Your task to perform on an android device: empty trash in the gmail app Image 0: 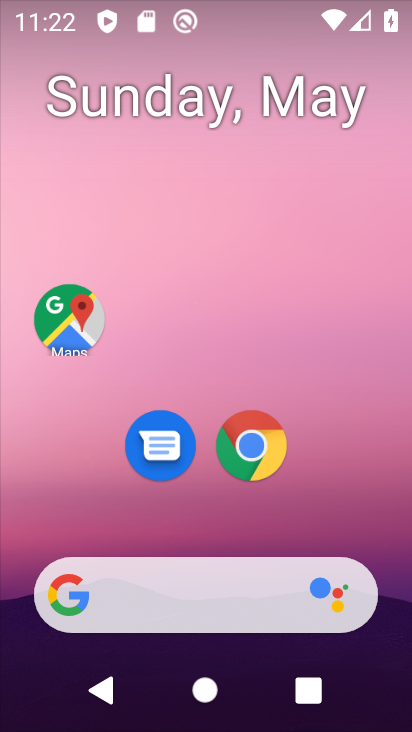
Step 0: press home button
Your task to perform on an android device: empty trash in the gmail app Image 1: 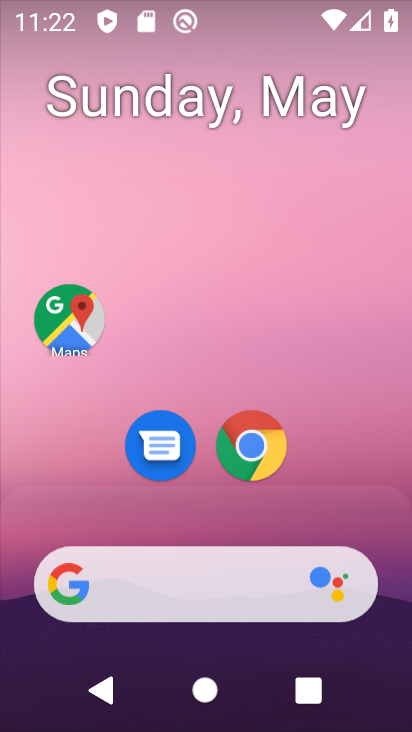
Step 1: drag from (204, 523) to (227, 9)
Your task to perform on an android device: empty trash in the gmail app Image 2: 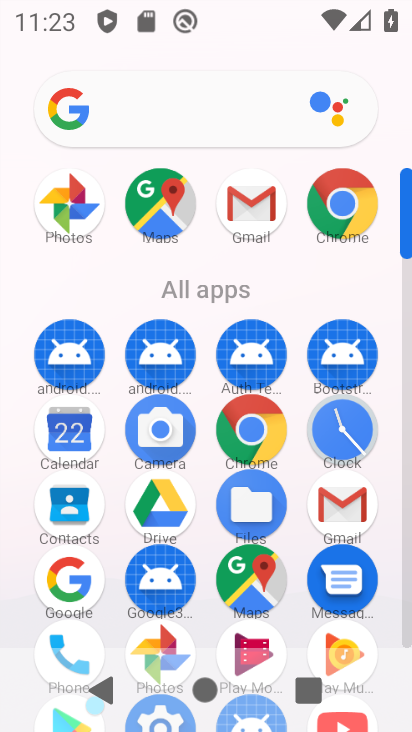
Step 2: click (348, 494)
Your task to perform on an android device: empty trash in the gmail app Image 3: 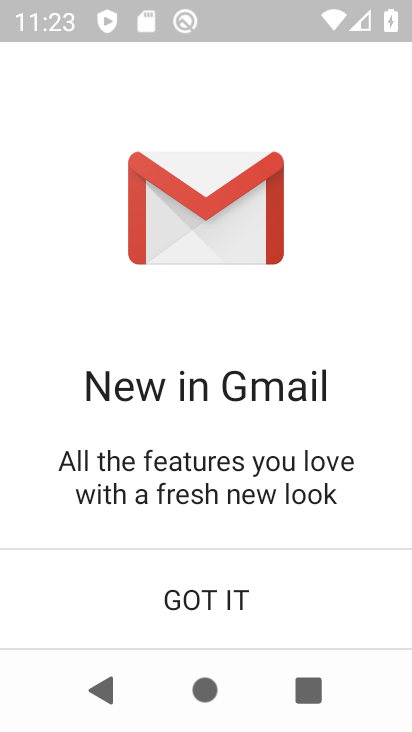
Step 3: click (212, 614)
Your task to perform on an android device: empty trash in the gmail app Image 4: 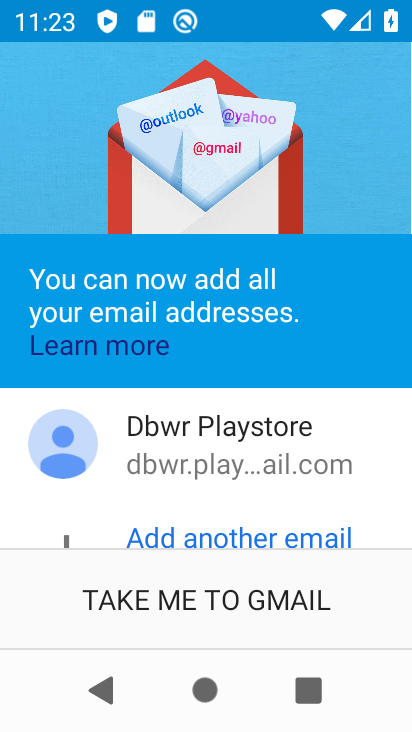
Step 4: click (200, 616)
Your task to perform on an android device: empty trash in the gmail app Image 5: 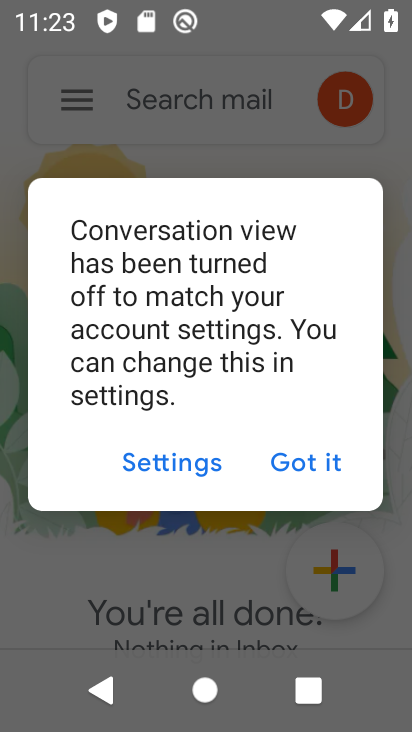
Step 5: click (309, 466)
Your task to perform on an android device: empty trash in the gmail app Image 6: 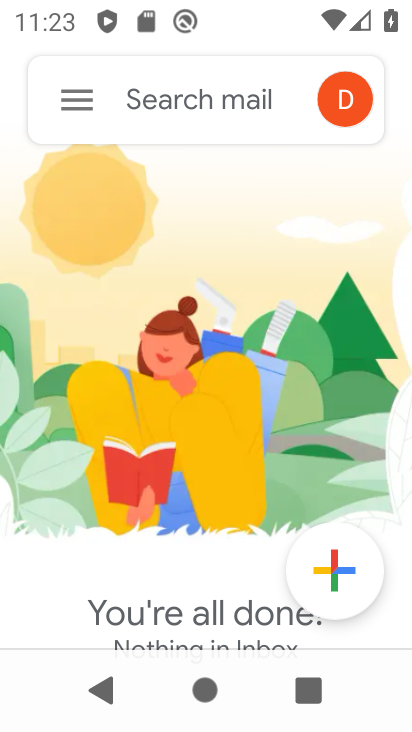
Step 6: click (74, 89)
Your task to perform on an android device: empty trash in the gmail app Image 7: 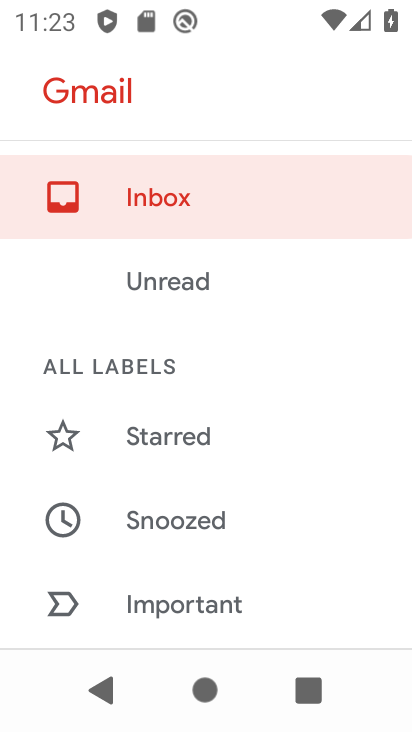
Step 7: click (74, 89)
Your task to perform on an android device: empty trash in the gmail app Image 8: 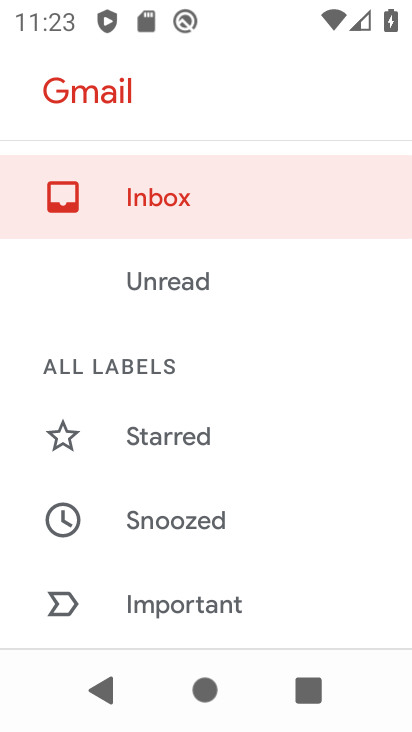
Step 8: drag from (164, 556) to (126, 20)
Your task to perform on an android device: empty trash in the gmail app Image 9: 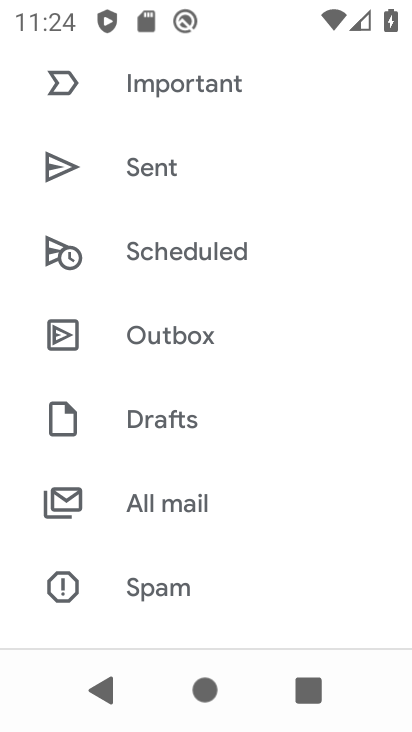
Step 9: drag from (165, 602) to (163, 124)
Your task to perform on an android device: empty trash in the gmail app Image 10: 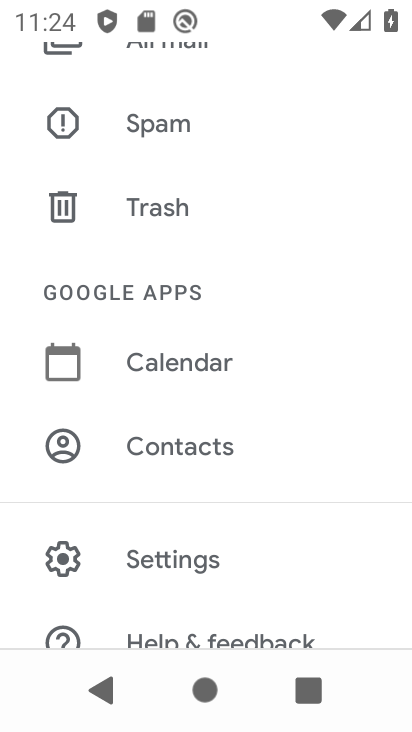
Step 10: click (108, 226)
Your task to perform on an android device: empty trash in the gmail app Image 11: 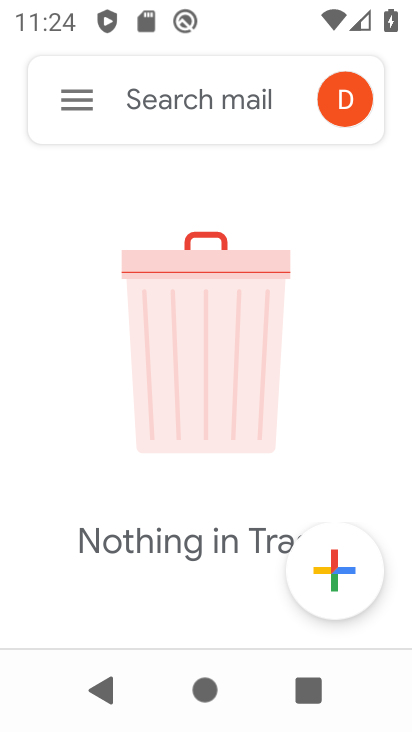
Step 11: task complete